Your task to perform on an android device: What's the weather? Image 0: 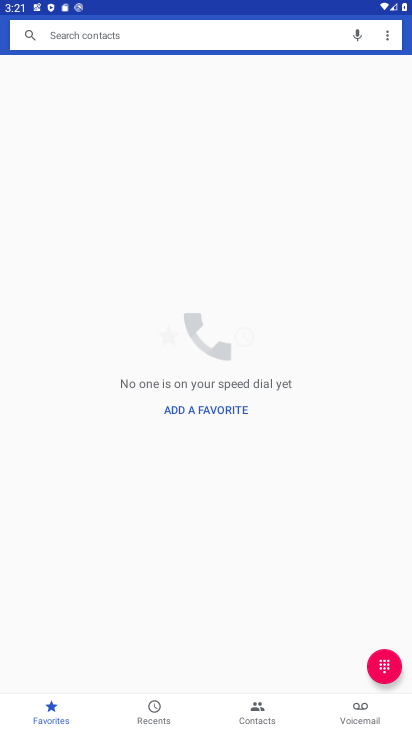
Step 0: press home button
Your task to perform on an android device: What's the weather? Image 1: 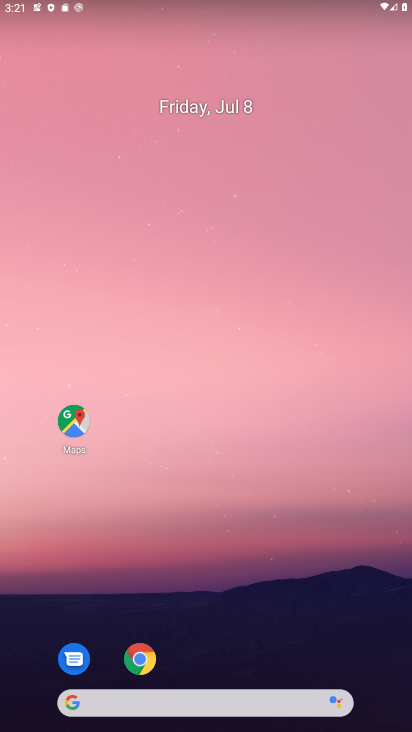
Step 1: drag from (198, 666) to (202, 280)
Your task to perform on an android device: What's the weather? Image 2: 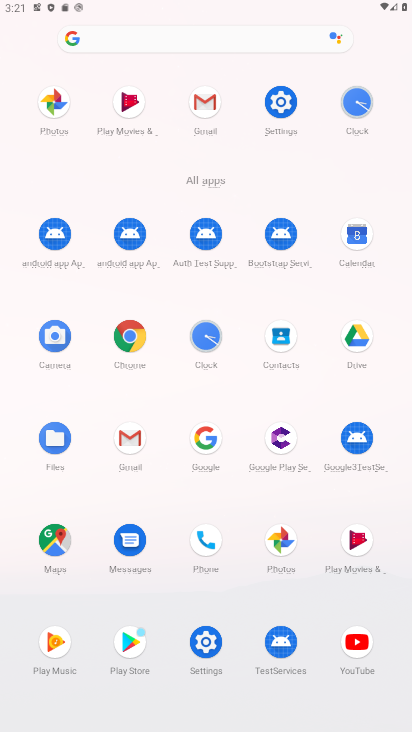
Step 2: click (213, 446)
Your task to perform on an android device: What's the weather? Image 3: 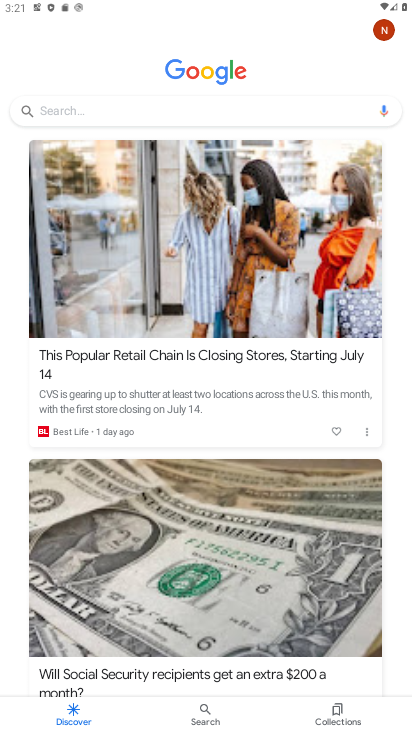
Step 3: click (161, 98)
Your task to perform on an android device: What's the weather? Image 4: 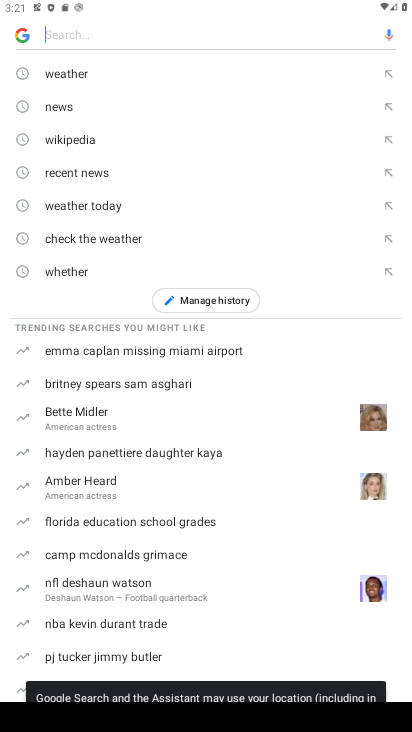
Step 4: click (80, 78)
Your task to perform on an android device: What's the weather? Image 5: 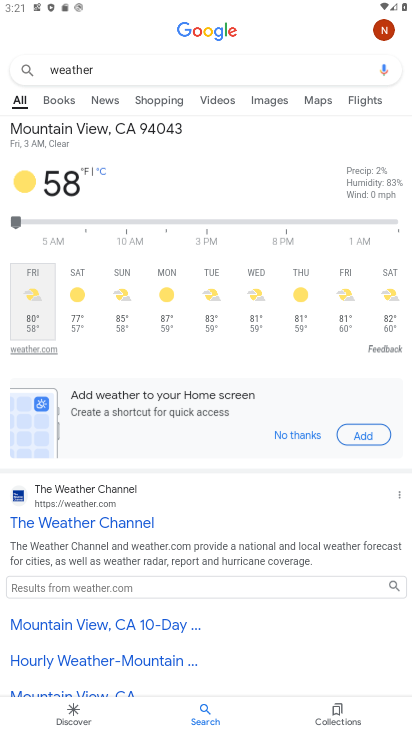
Step 5: task complete